Your task to perform on an android device: Open battery settings Image 0: 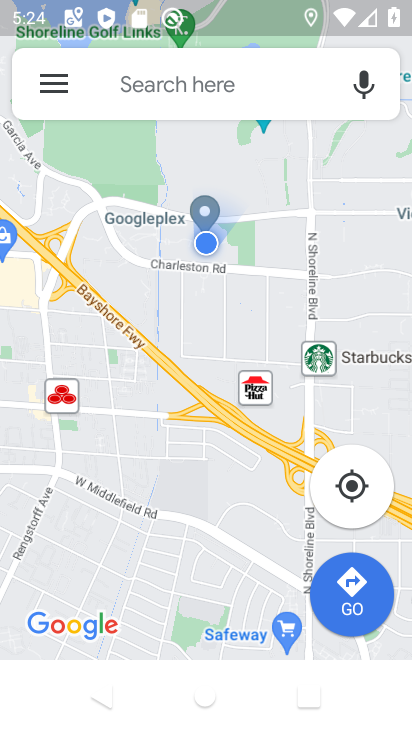
Step 0: press home button
Your task to perform on an android device: Open battery settings Image 1: 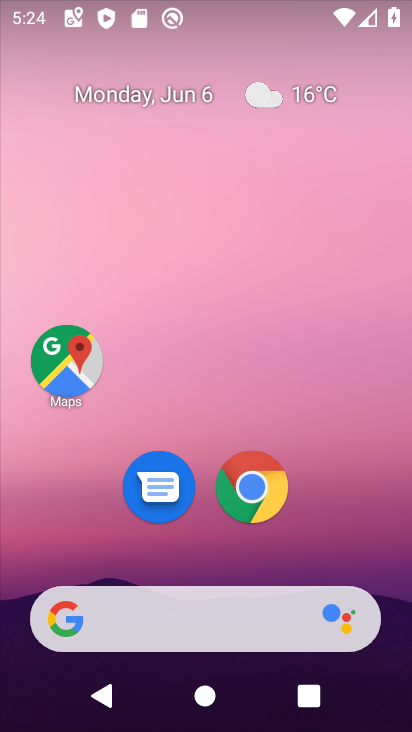
Step 1: drag from (290, 558) to (283, 29)
Your task to perform on an android device: Open battery settings Image 2: 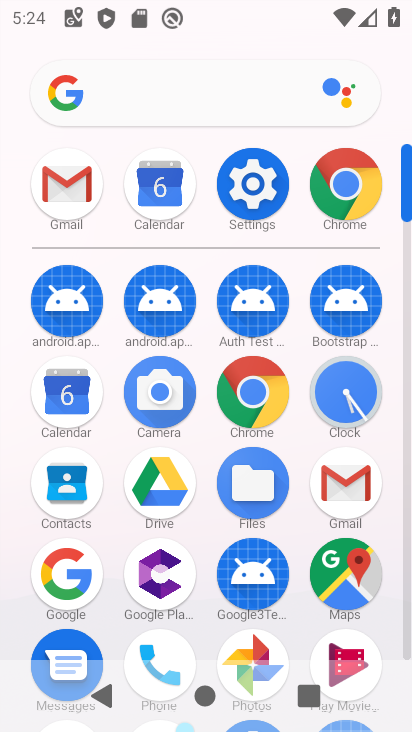
Step 2: click (253, 165)
Your task to perform on an android device: Open battery settings Image 3: 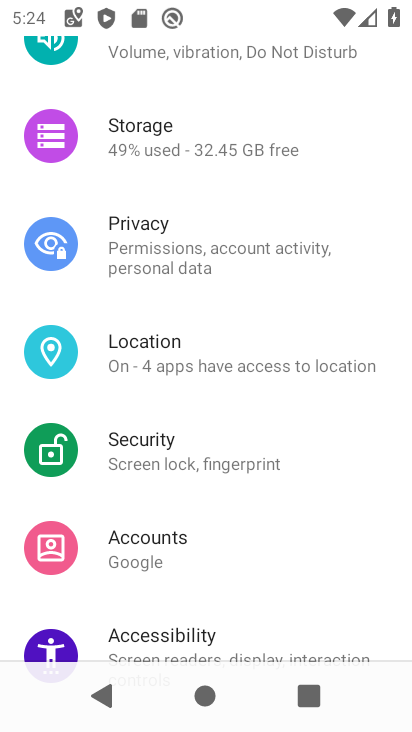
Step 3: drag from (227, 326) to (231, 537)
Your task to perform on an android device: Open battery settings Image 4: 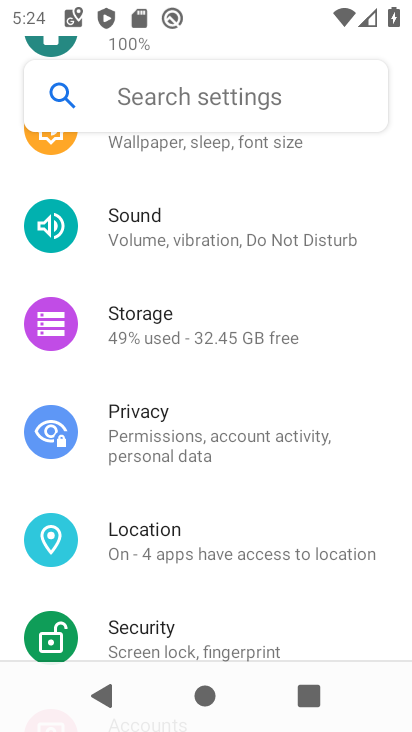
Step 4: drag from (208, 286) to (219, 561)
Your task to perform on an android device: Open battery settings Image 5: 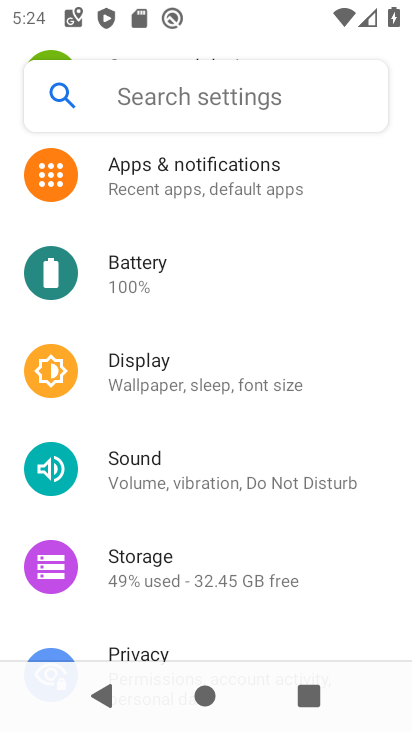
Step 5: click (198, 272)
Your task to perform on an android device: Open battery settings Image 6: 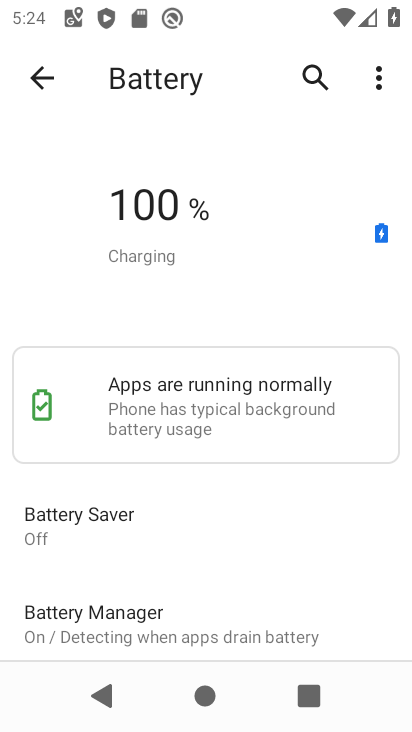
Step 6: task complete